Your task to perform on an android device: change notification settings in the gmail app Image 0: 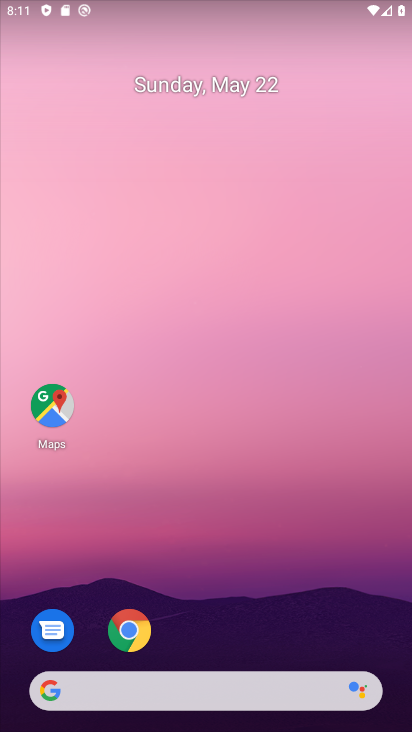
Step 0: drag from (237, 643) to (280, 328)
Your task to perform on an android device: change notification settings in the gmail app Image 1: 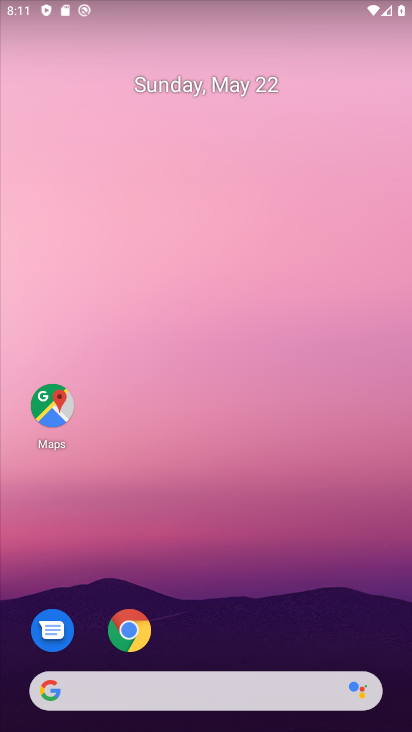
Step 1: drag from (266, 637) to (281, 175)
Your task to perform on an android device: change notification settings in the gmail app Image 2: 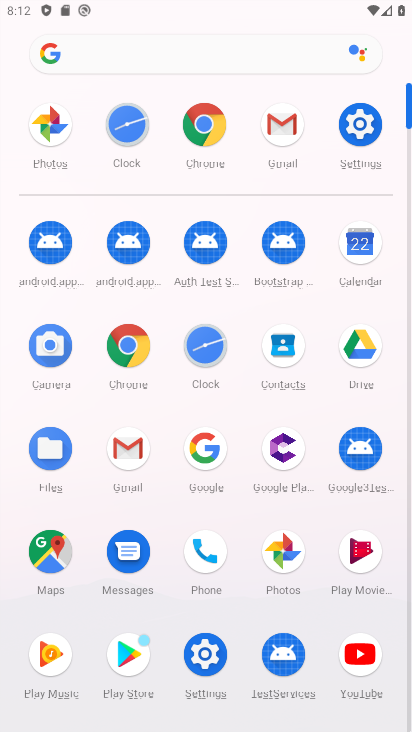
Step 2: click (287, 112)
Your task to perform on an android device: change notification settings in the gmail app Image 3: 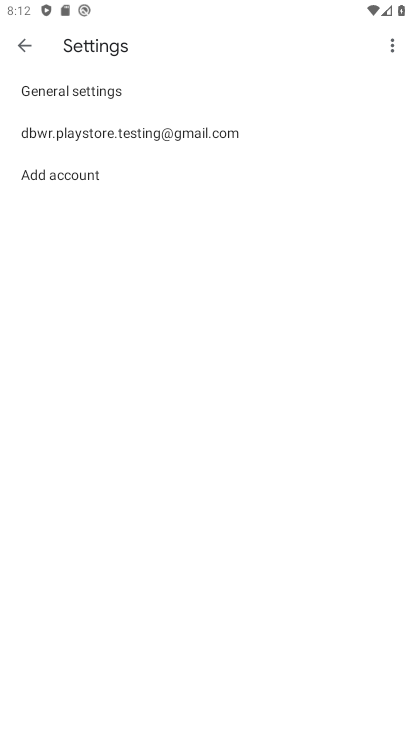
Step 3: click (89, 95)
Your task to perform on an android device: change notification settings in the gmail app Image 4: 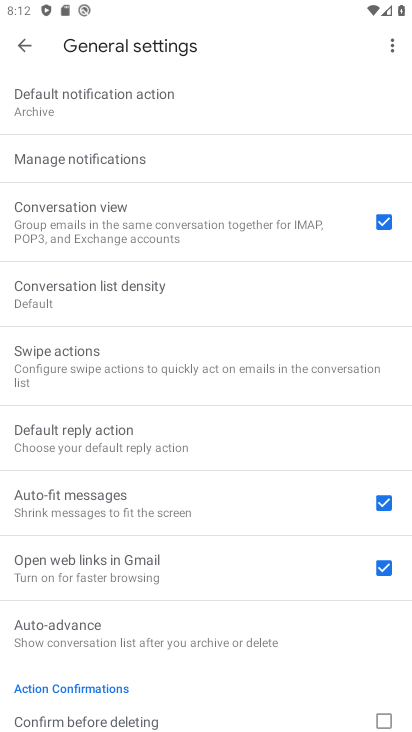
Step 4: click (145, 170)
Your task to perform on an android device: change notification settings in the gmail app Image 5: 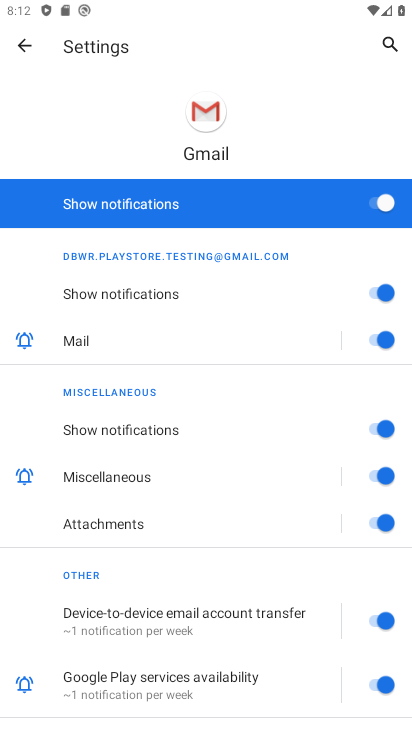
Step 5: task complete